Your task to perform on an android device: Open privacy settings Image 0: 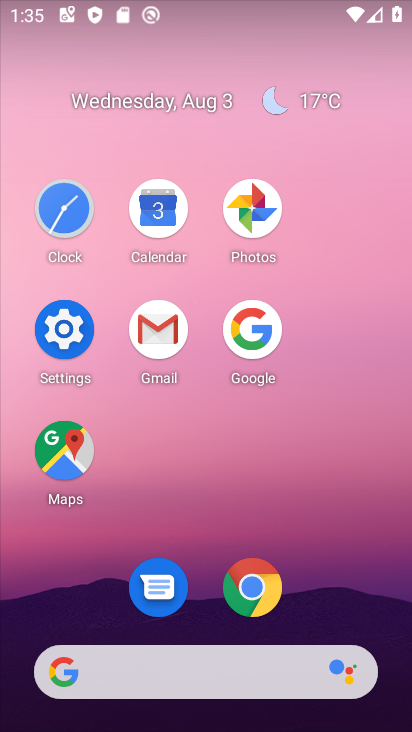
Step 0: click (75, 329)
Your task to perform on an android device: Open privacy settings Image 1: 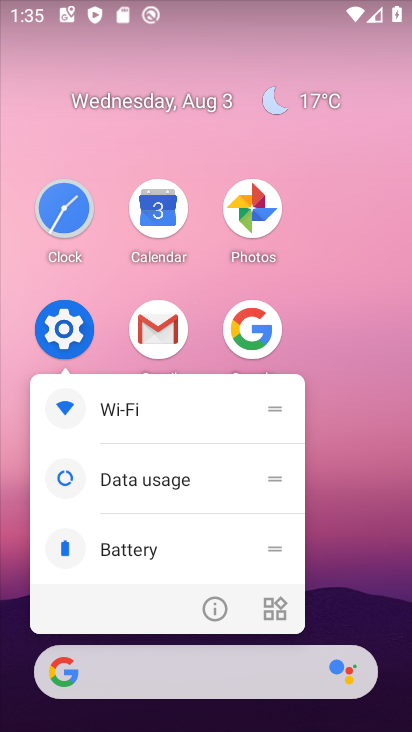
Step 1: click (82, 336)
Your task to perform on an android device: Open privacy settings Image 2: 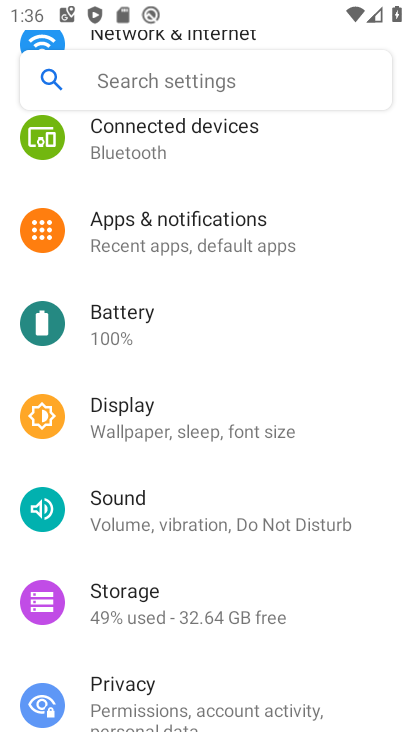
Step 2: click (180, 683)
Your task to perform on an android device: Open privacy settings Image 3: 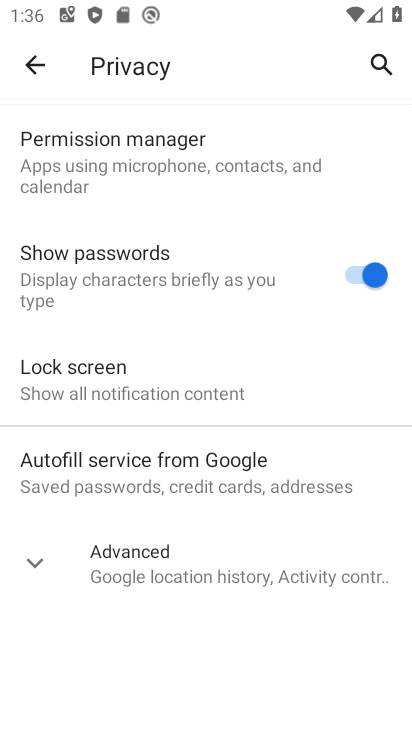
Step 3: task complete